Your task to perform on an android device: Look up the best rated 5.1 home theater speakers on Walmart. Image 0: 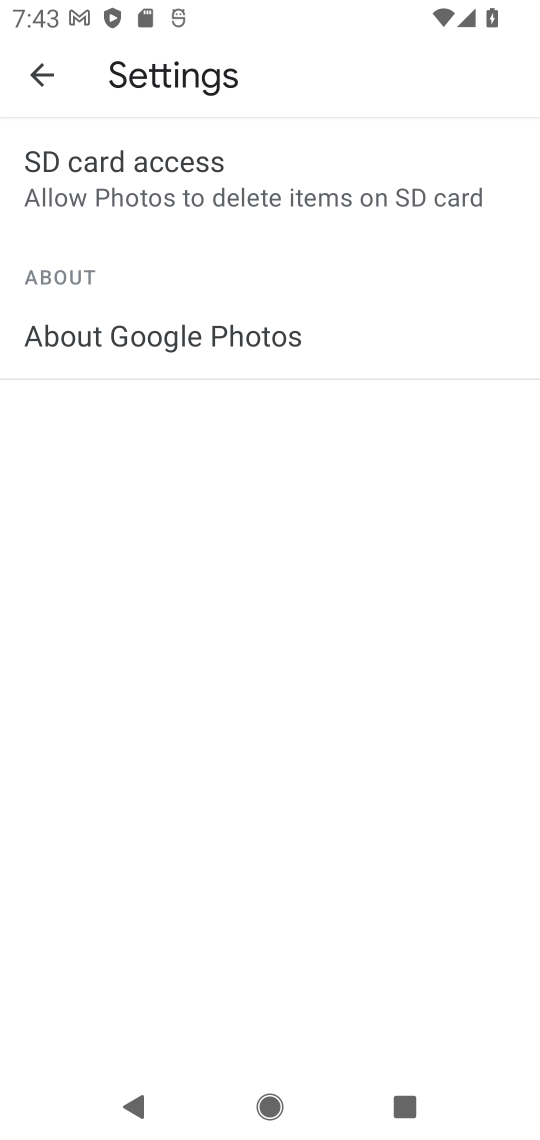
Step 0: press home button
Your task to perform on an android device: Look up the best rated 5.1 home theater speakers on Walmart. Image 1: 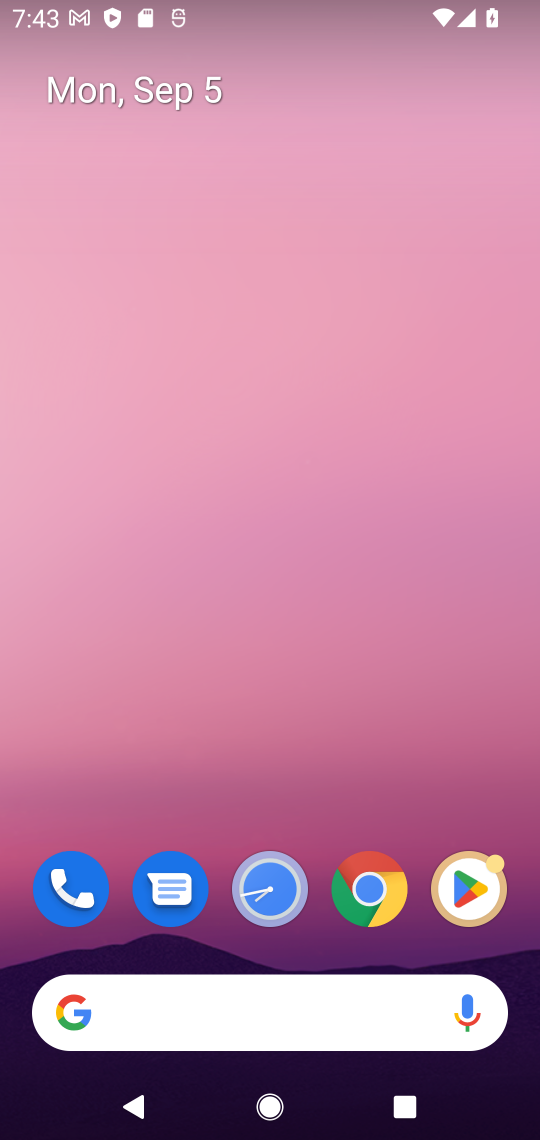
Step 1: click (186, 1004)
Your task to perform on an android device: Look up the best rated 5.1 home theater speakers on Walmart. Image 2: 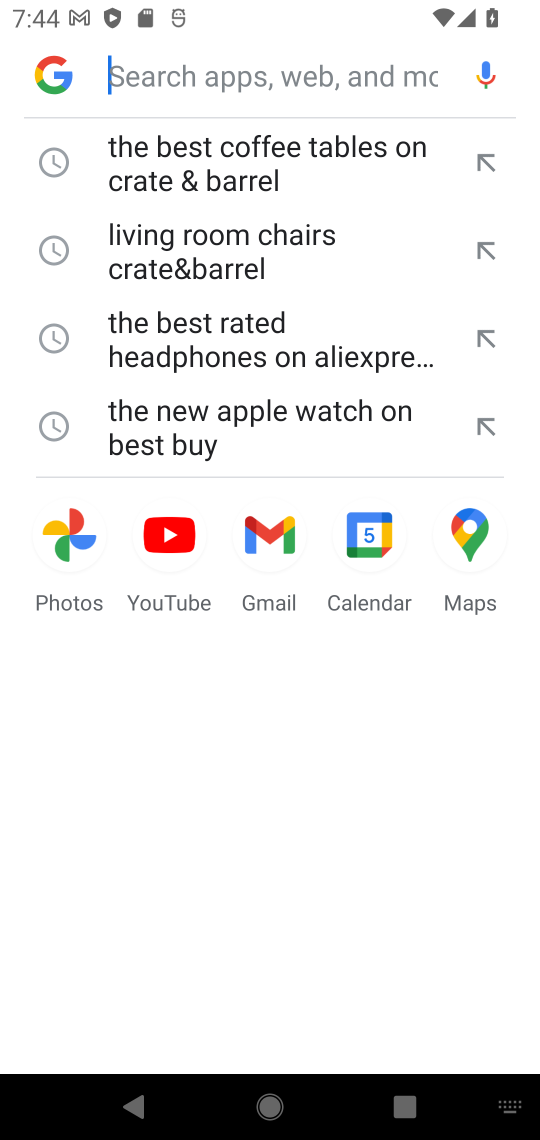
Step 2: type " the best rated 5.1 home theater speakers on Walmart."
Your task to perform on an android device: Look up the best rated 5.1 home theater speakers on Walmart. Image 3: 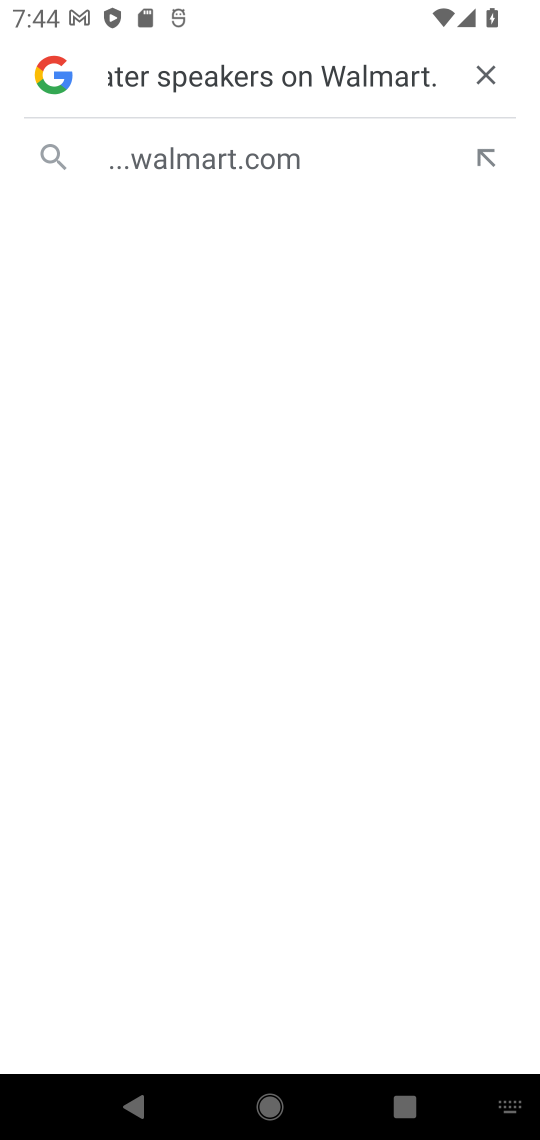
Step 3: click (243, 167)
Your task to perform on an android device: Look up the best rated 5.1 home theater speakers on Walmart. Image 4: 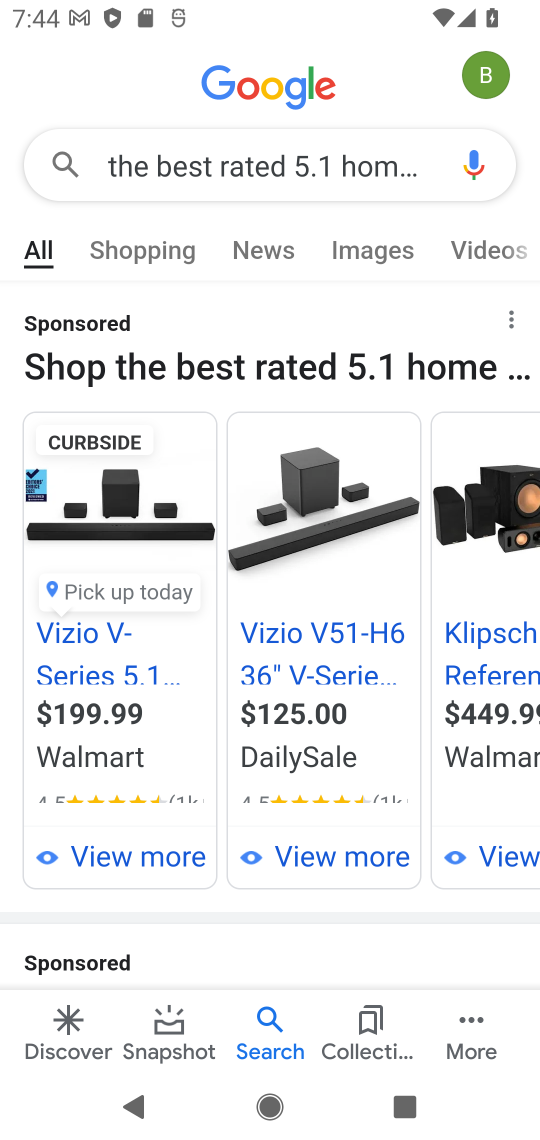
Step 4: task complete